Your task to perform on an android device: change the clock display to analog Image 0: 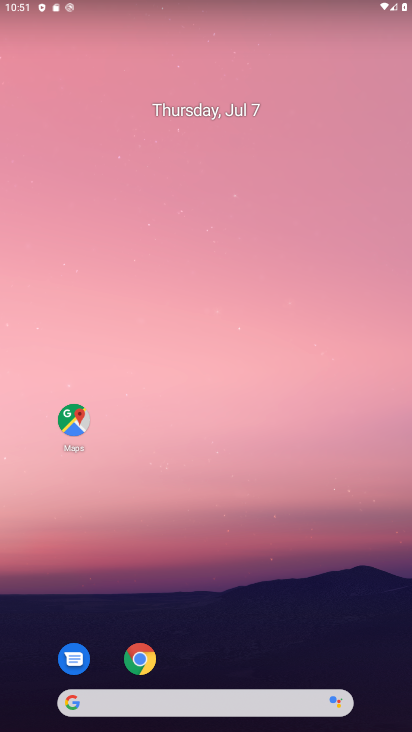
Step 0: press home button
Your task to perform on an android device: change the clock display to analog Image 1: 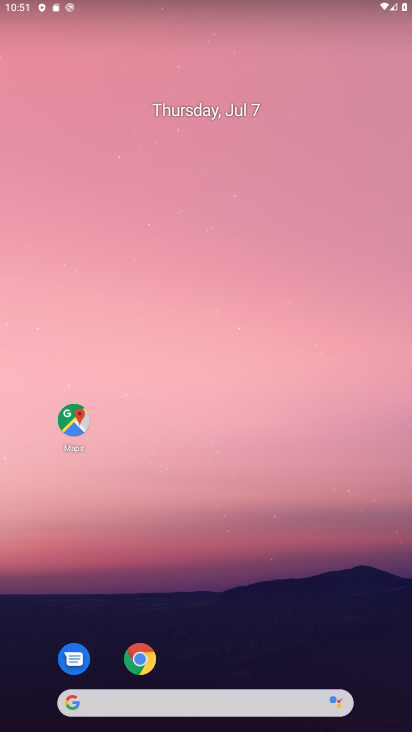
Step 1: drag from (230, 658) to (257, 66)
Your task to perform on an android device: change the clock display to analog Image 2: 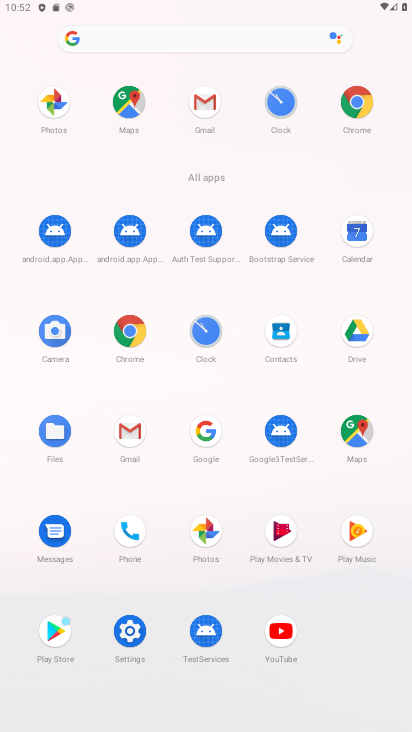
Step 2: click (208, 315)
Your task to perform on an android device: change the clock display to analog Image 3: 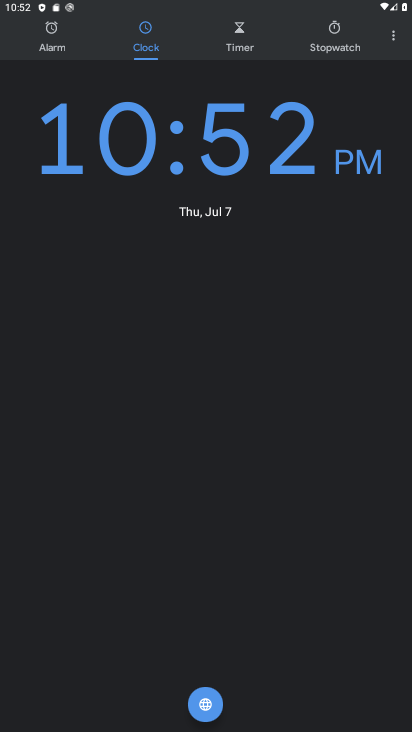
Step 3: click (396, 33)
Your task to perform on an android device: change the clock display to analog Image 4: 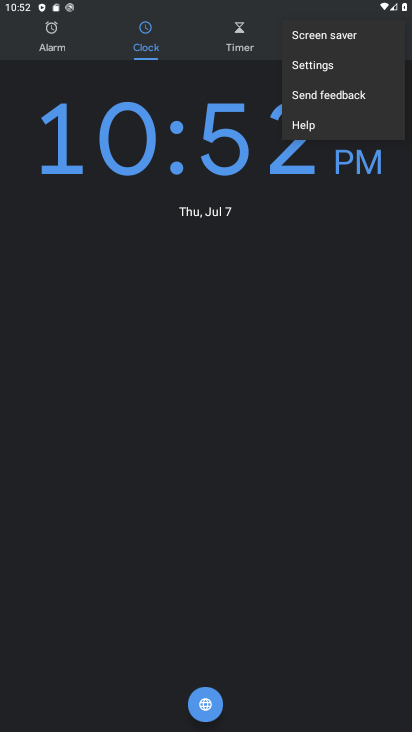
Step 4: click (312, 66)
Your task to perform on an android device: change the clock display to analog Image 5: 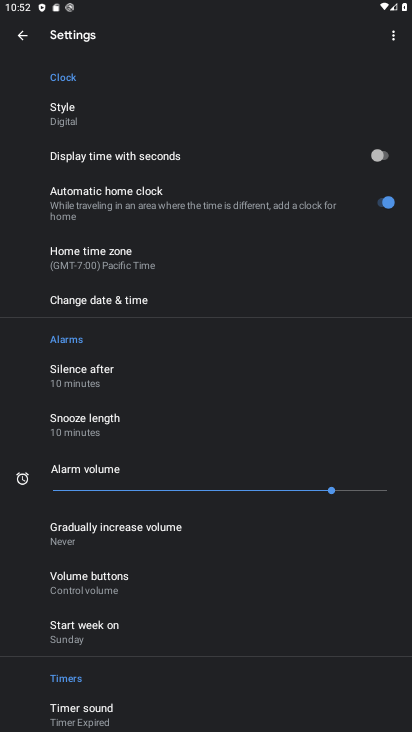
Step 5: click (77, 110)
Your task to perform on an android device: change the clock display to analog Image 6: 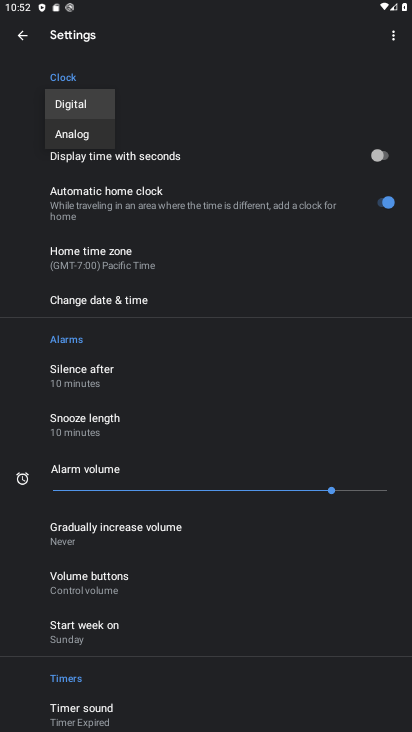
Step 6: click (78, 136)
Your task to perform on an android device: change the clock display to analog Image 7: 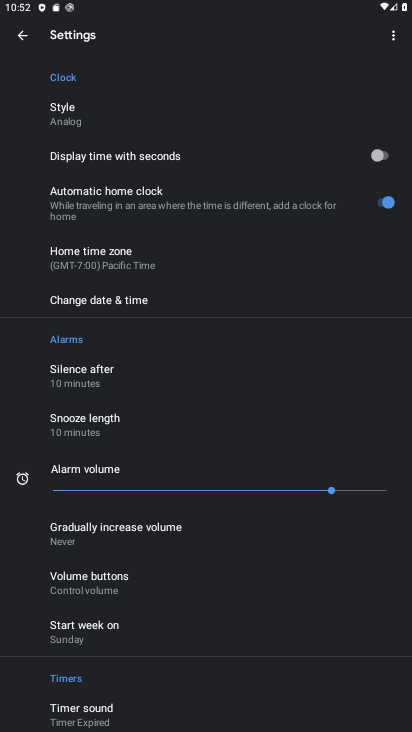
Step 7: task complete